Your task to perform on an android device: Clear the shopping cart on bestbuy. Search for duracell triple a on bestbuy, select the first entry, add it to the cart, then select checkout. Image 0: 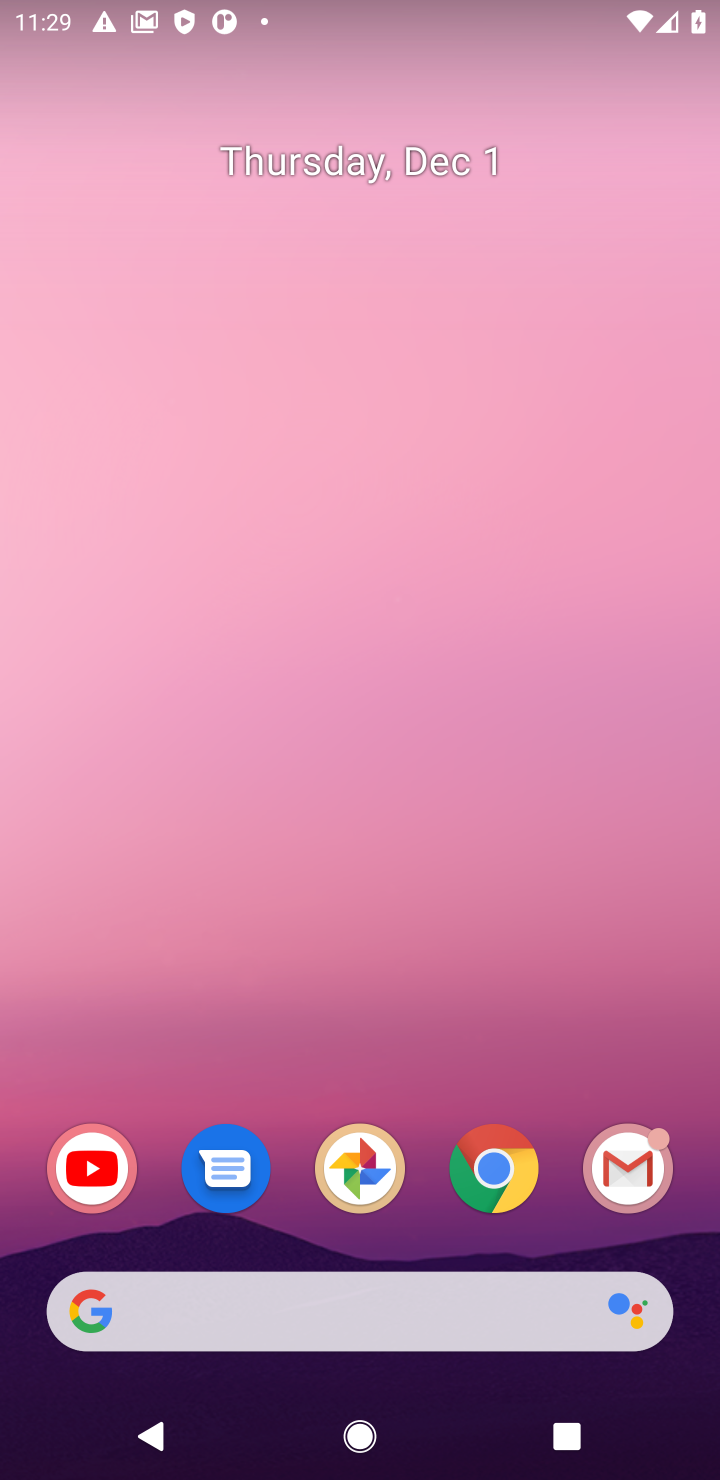
Step 0: click (485, 1176)
Your task to perform on an android device: Clear the shopping cart on bestbuy. Search for duracell triple a on bestbuy, select the first entry, add it to the cart, then select checkout. Image 1: 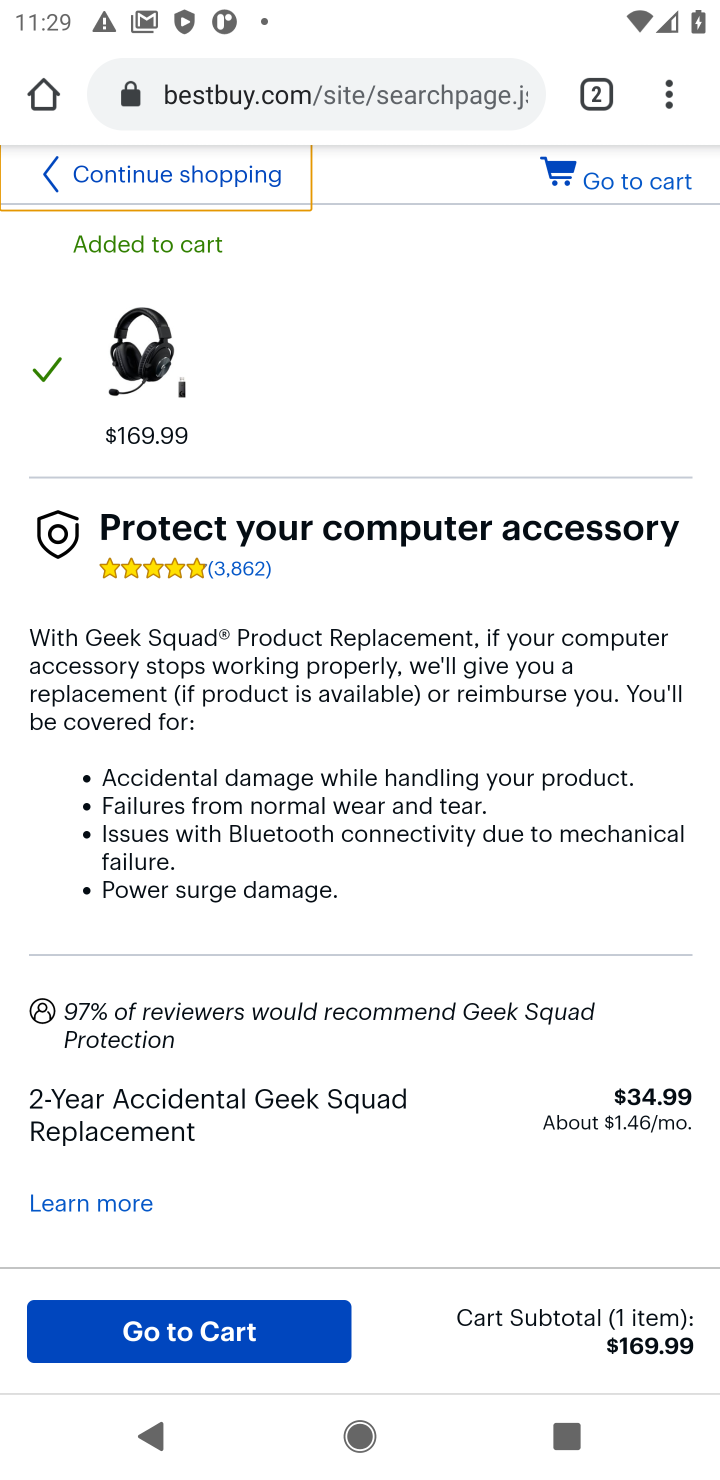
Step 1: click (637, 184)
Your task to perform on an android device: Clear the shopping cart on bestbuy. Search for duracell triple a on bestbuy, select the first entry, add it to the cart, then select checkout. Image 2: 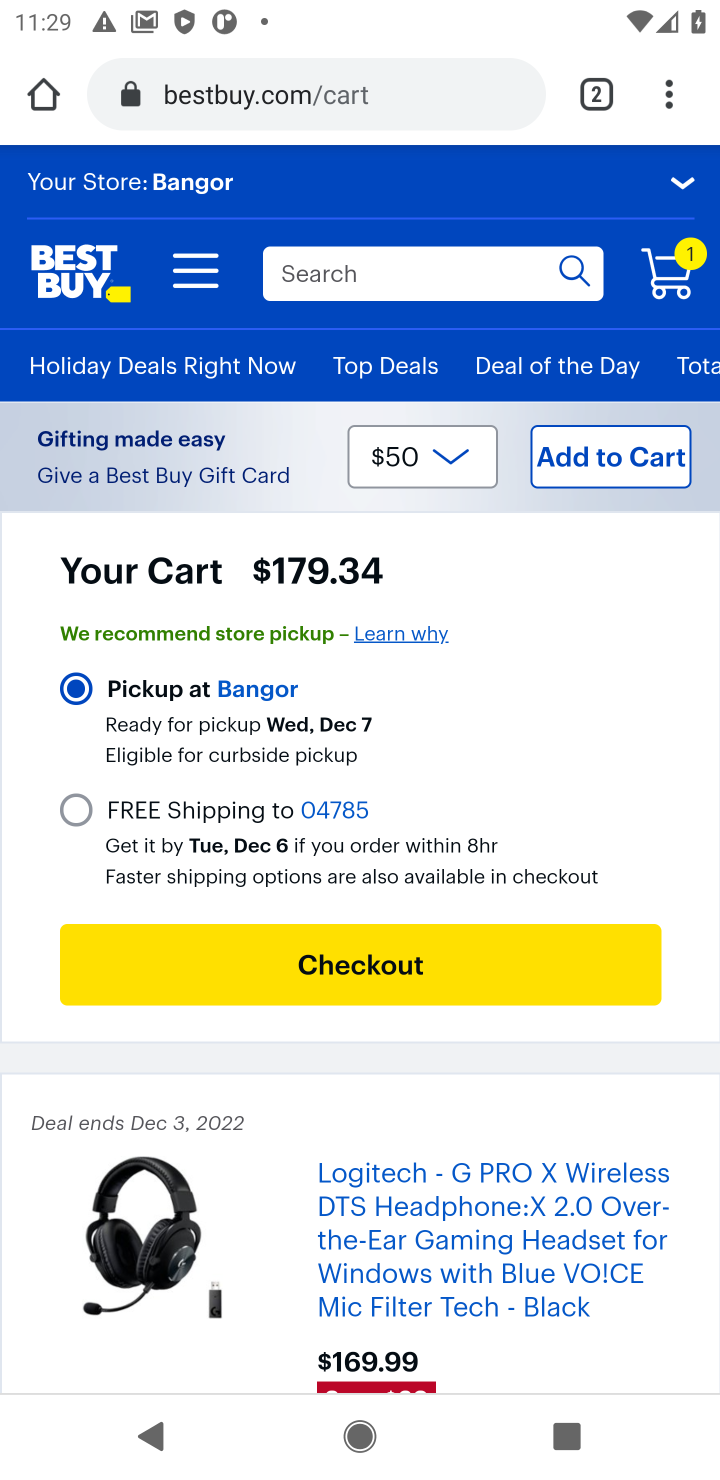
Step 2: drag from (572, 701) to (549, 245)
Your task to perform on an android device: Clear the shopping cart on bestbuy. Search for duracell triple a on bestbuy, select the first entry, add it to the cart, then select checkout. Image 3: 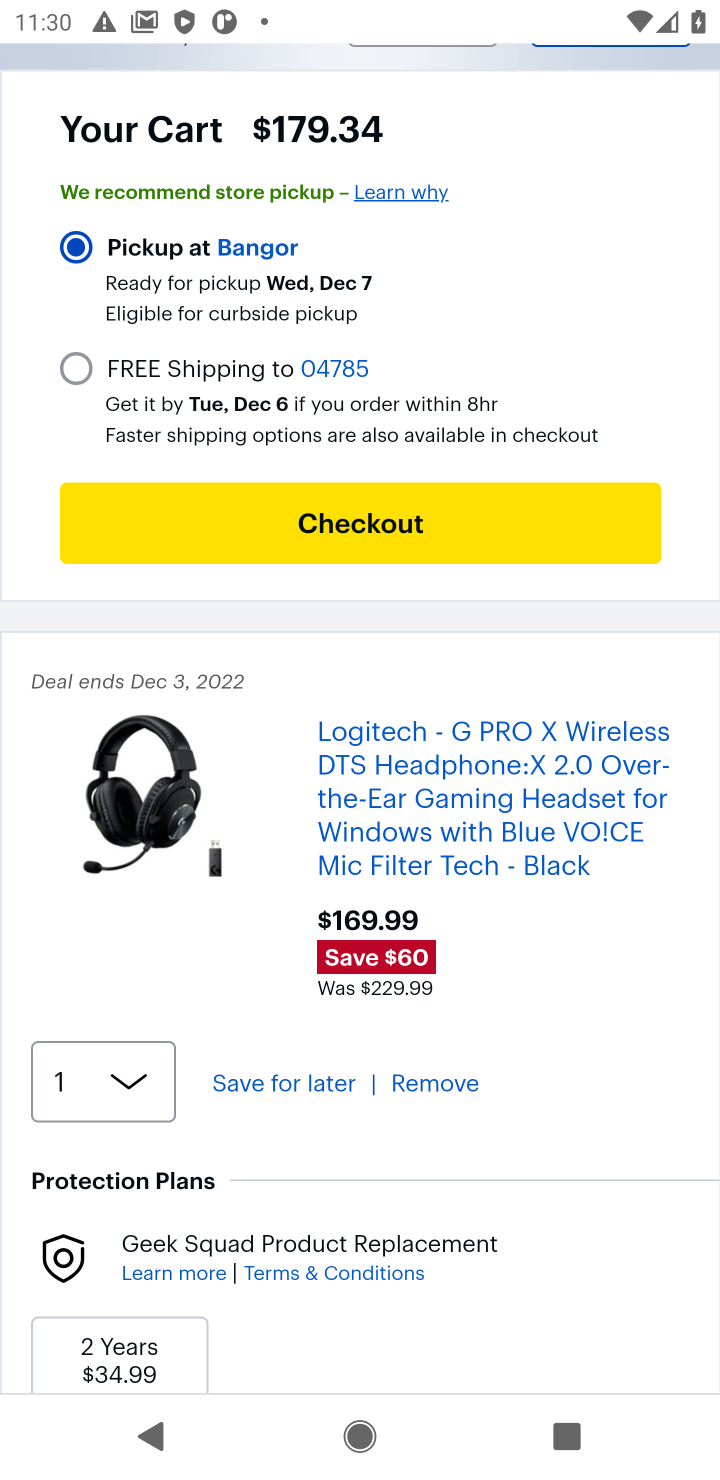
Step 3: click (417, 1083)
Your task to perform on an android device: Clear the shopping cart on bestbuy. Search for duracell triple a on bestbuy, select the first entry, add it to the cart, then select checkout. Image 4: 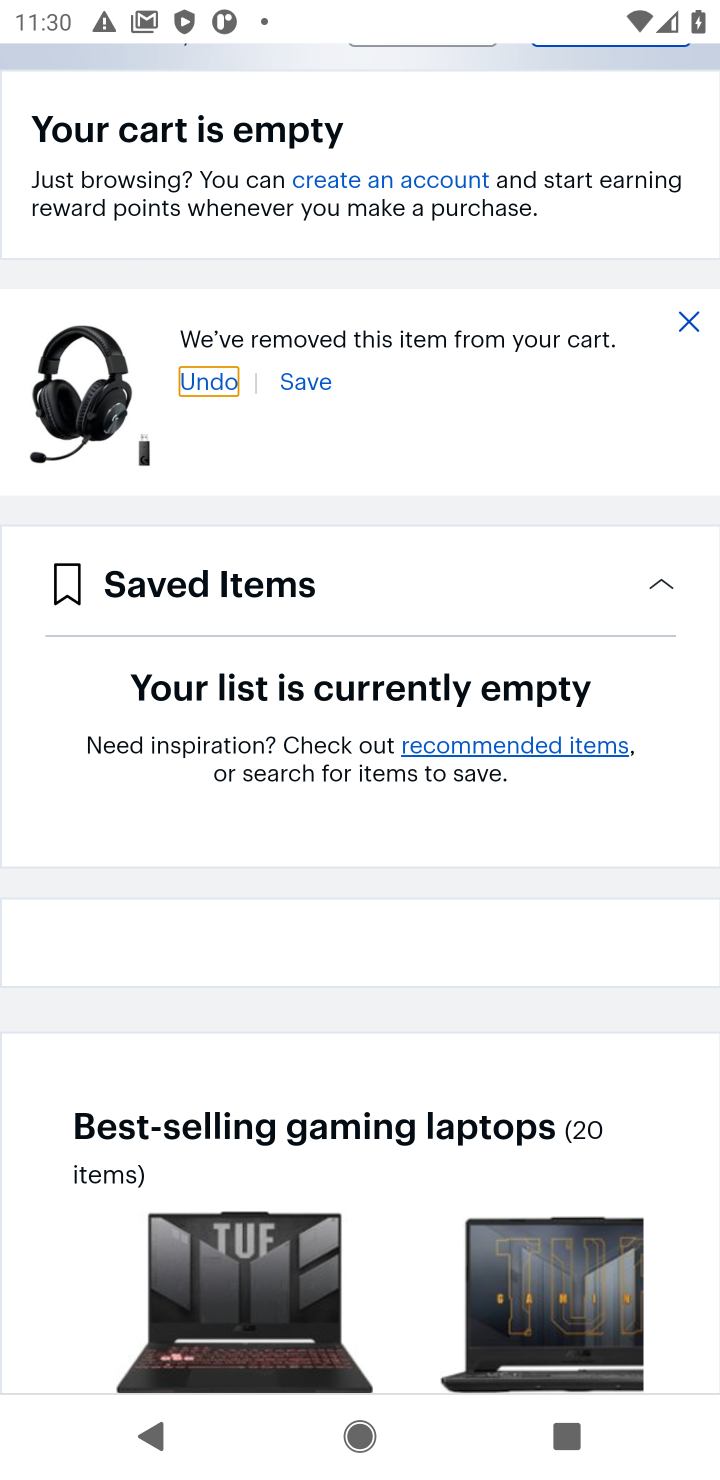
Step 4: drag from (279, 179) to (285, 636)
Your task to perform on an android device: Clear the shopping cart on bestbuy. Search for duracell triple a on bestbuy, select the first entry, add it to the cart, then select checkout. Image 5: 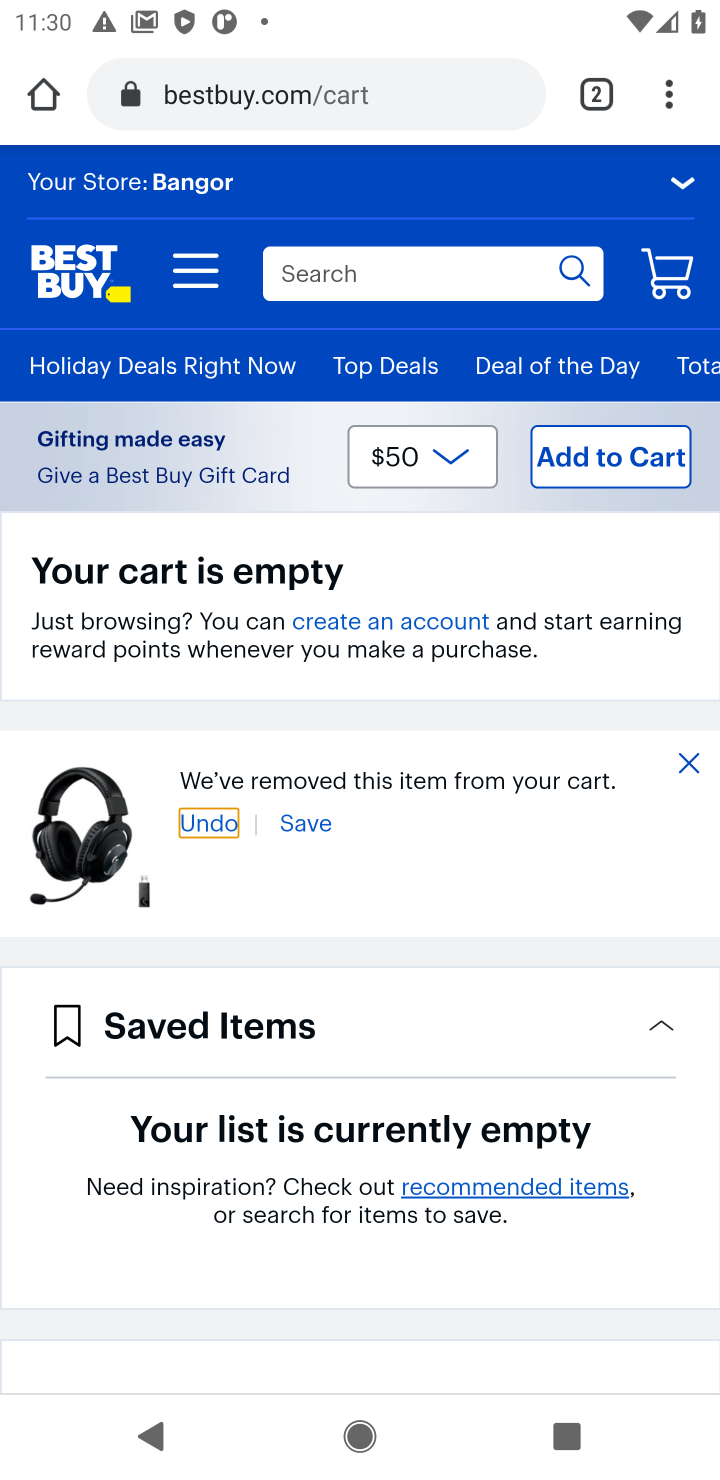
Step 5: click (318, 278)
Your task to perform on an android device: Clear the shopping cart on bestbuy. Search for duracell triple a on bestbuy, select the first entry, add it to the cart, then select checkout. Image 6: 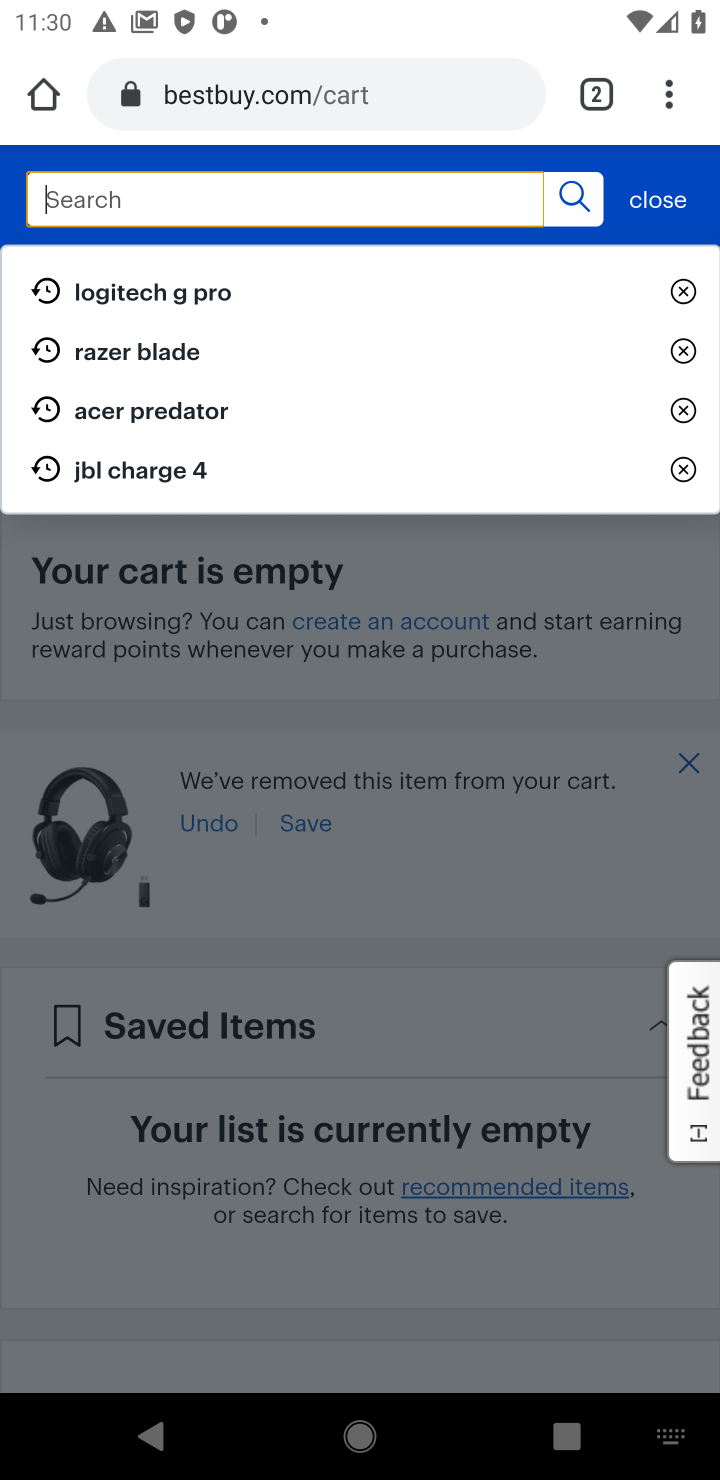
Step 6: type "duracell triple a "
Your task to perform on an android device: Clear the shopping cart on bestbuy. Search for duracell triple a on bestbuy, select the first entry, add it to the cart, then select checkout. Image 7: 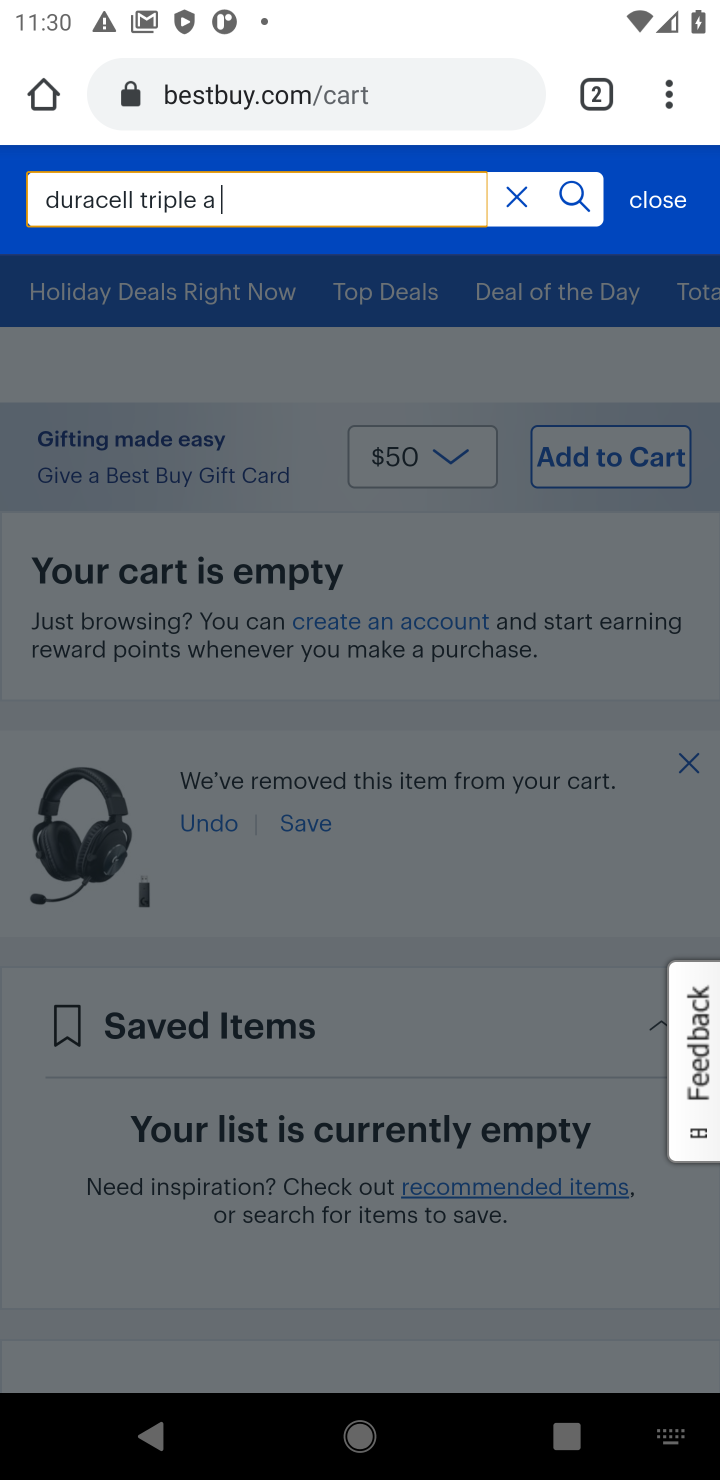
Step 7: click (568, 207)
Your task to perform on an android device: Clear the shopping cart on bestbuy. Search for duracell triple a on bestbuy, select the first entry, add it to the cart, then select checkout. Image 8: 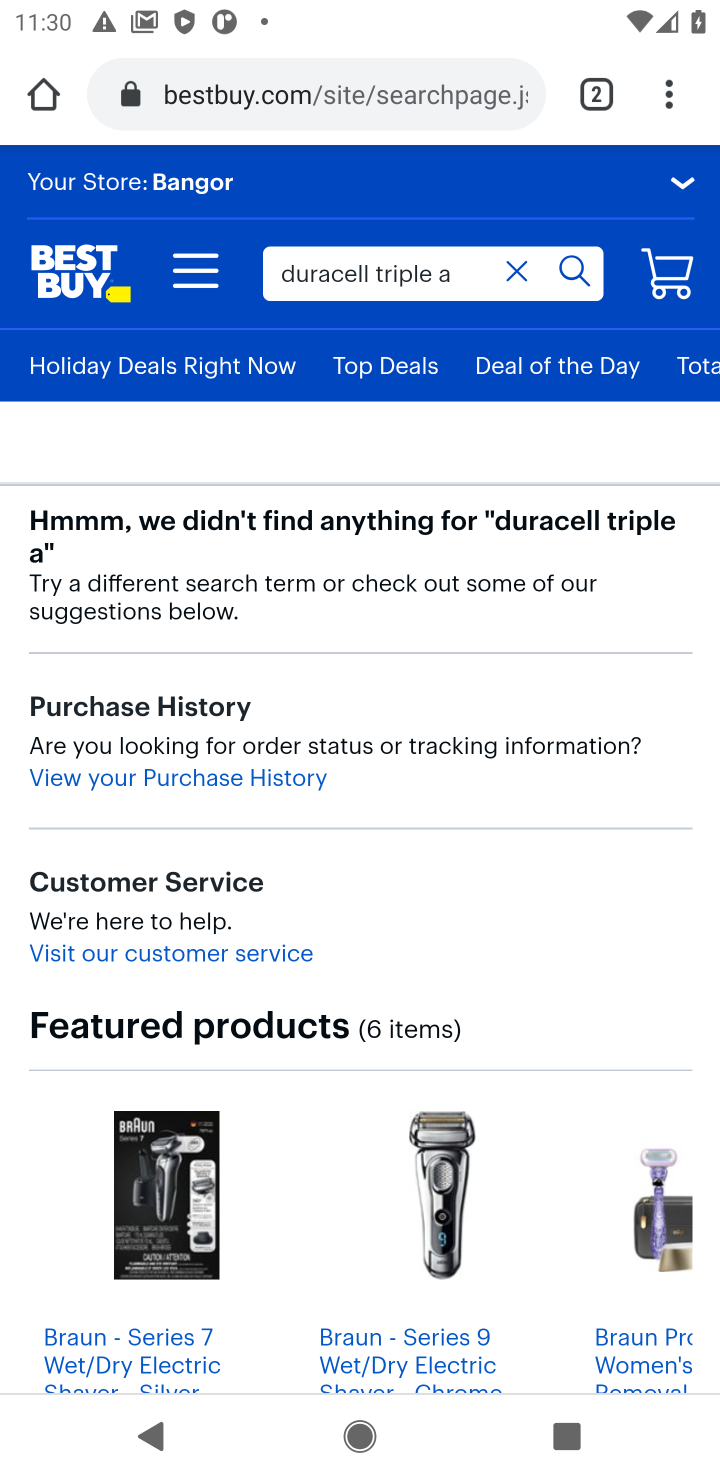
Step 8: task complete